Your task to perform on an android device: Search for pizza restaurants on Maps Image 0: 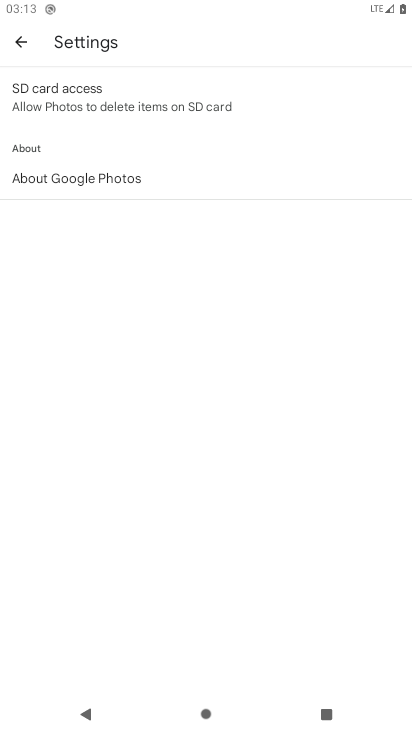
Step 0: press home button
Your task to perform on an android device: Search for pizza restaurants on Maps Image 1: 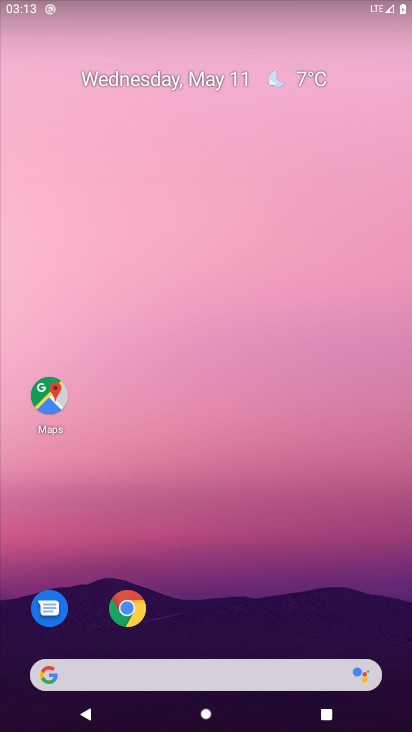
Step 1: drag from (216, 635) to (273, 68)
Your task to perform on an android device: Search for pizza restaurants on Maps Image 2: 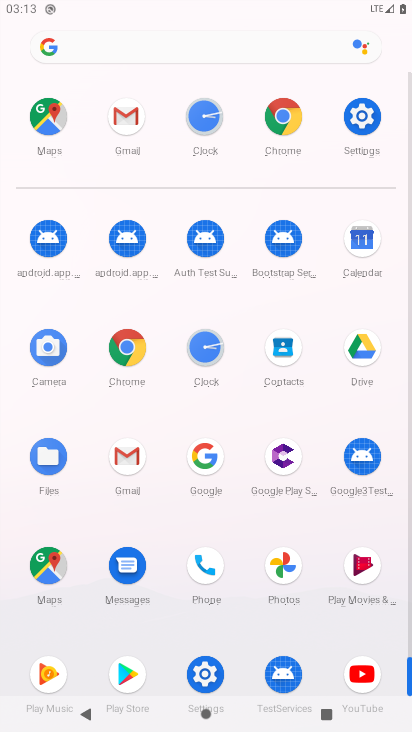
Step 2: click (50, 562)
Your task to perform on an android device: Search for pizza restaurants on Maps Image 3: 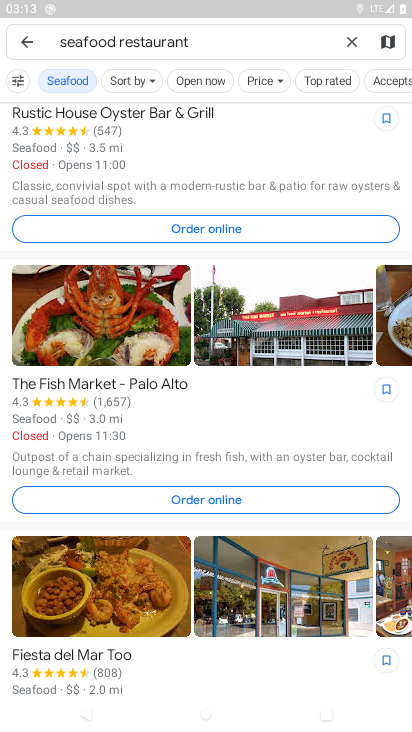
Step 3: click (349, 41)
Your task to perform on an android device: Search for pizza restaurants on Maps Image 4: 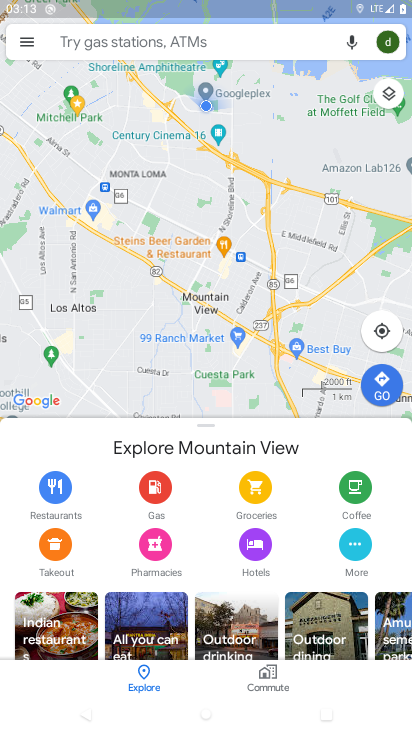
Step 4: click (140, 41)
Your task to perform on an android device: Search for pizza restaurants on Maps Image 5: 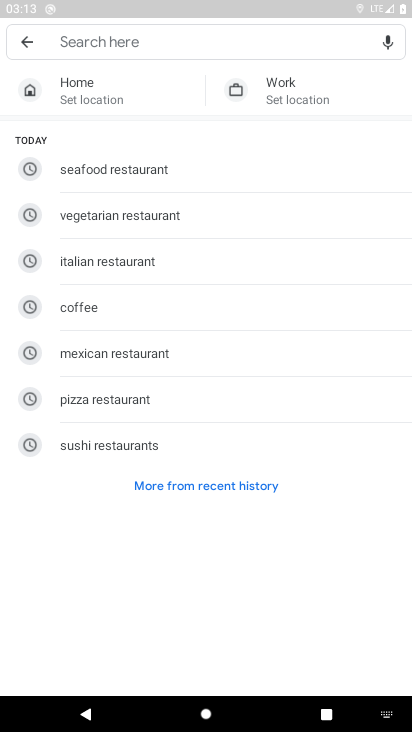
Step 5: type "pizza"
Your task to perform on an android device: Search for pizza restaurants on Maps Image 6: 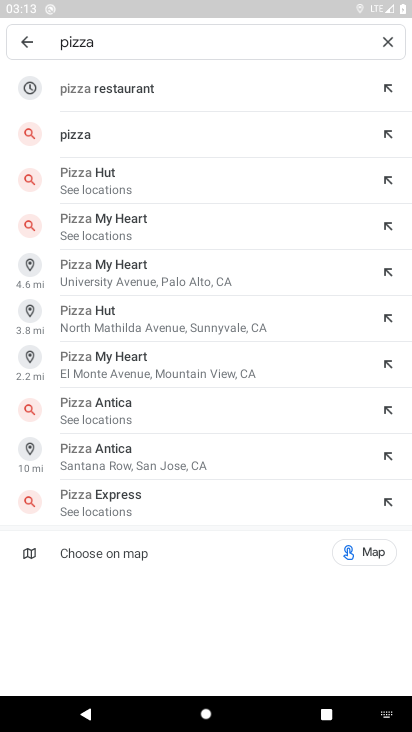
Step 6: click (166, 85)
Your task to perform on an android device: Search for pizza restaurants on Maps Image 7: 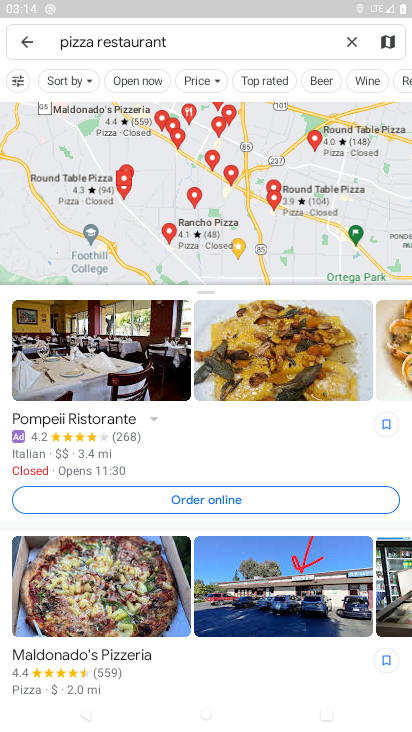
Step 7: task complete